Your task to perform on an android device: Open my contact list Image 0: 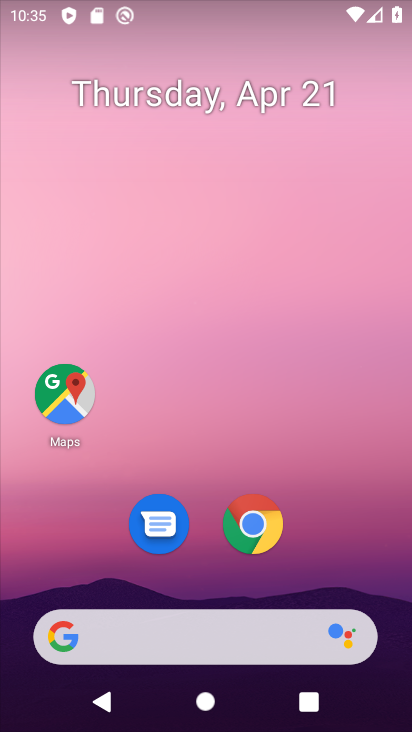
Step 0: drag from (341, 495) to (394, 95)
Your task to perform on an android device: Open my contact list Image 1: 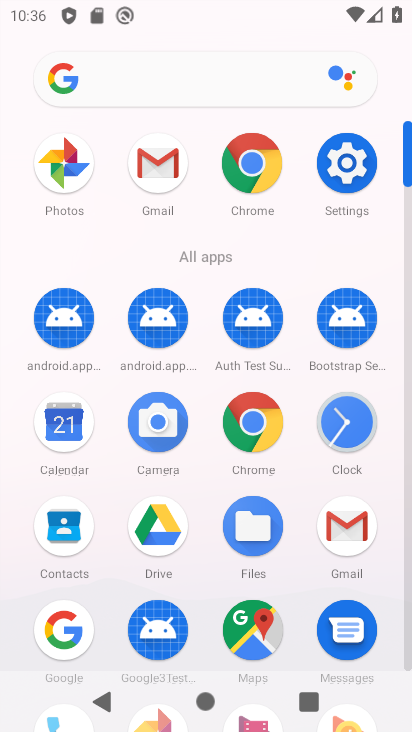
Step 1: click (70, 426)
Your task to perform on an android device: Open my contact list Image 2: 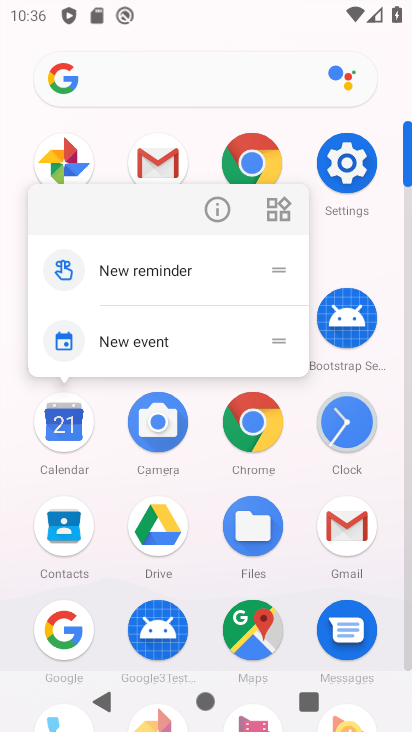
Step 2: click (62, 519)
Your task to perform on an android device: Open my contact list Image 3: 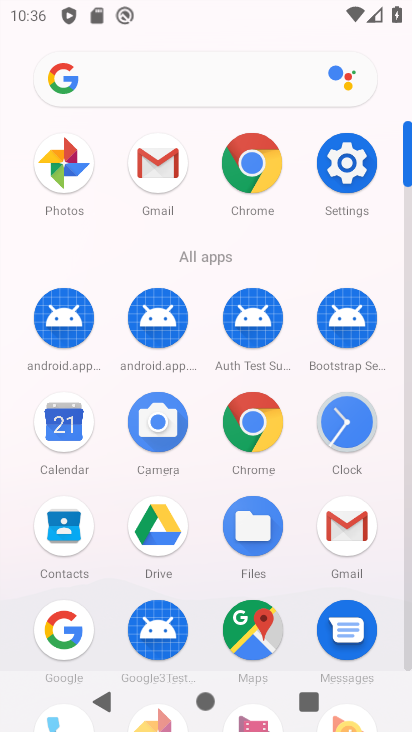
Step 3: click (62, 519)
Your task to perform on an android device: Open my contact list Image 4: 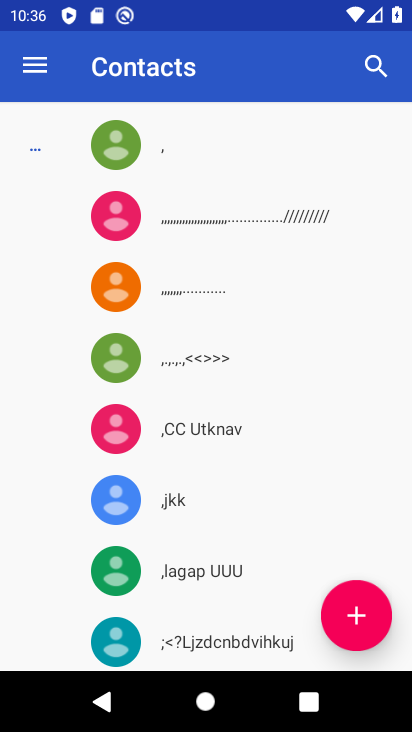
Step 4: task complete